Your task to perform on an android device: Turn off the flashlight Image 0: 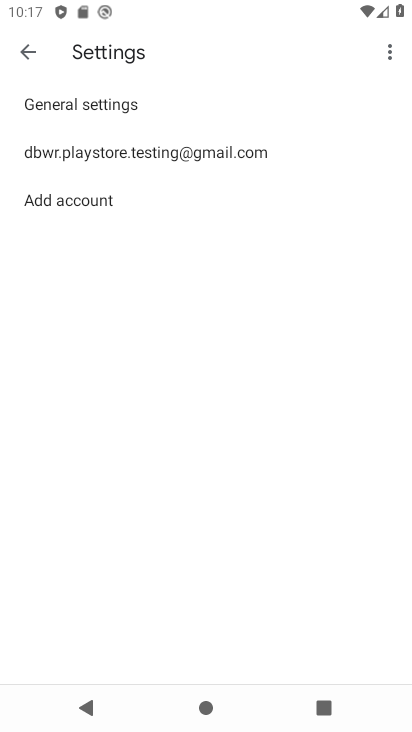
Step 0: press back button
Your task to perform on an android device: Turn off the flashlight Image 1: 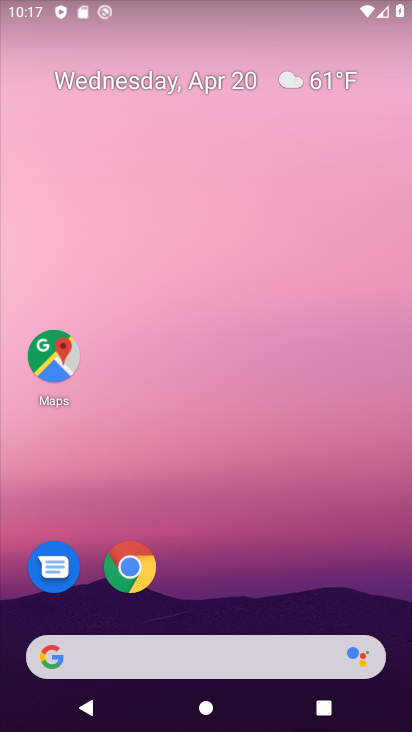
Step 1: drag from (221, 616) to (260, 144)
Your task to perform on an android device: Turn off the flashlight Image 2: 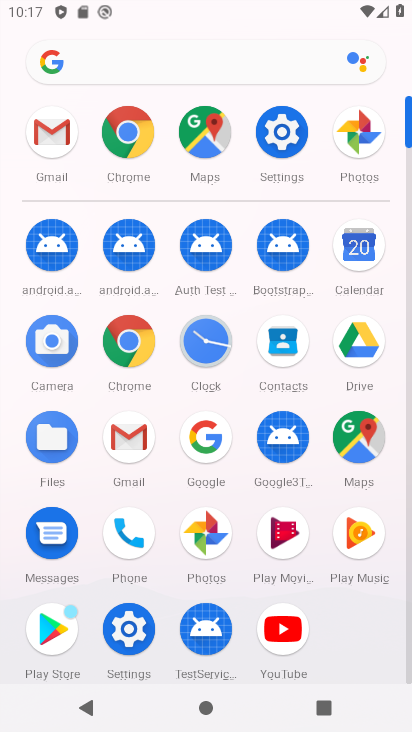
Step 2: click (277, 125)
Your task to perform on an android device: Turn off the flashlight Image 3: 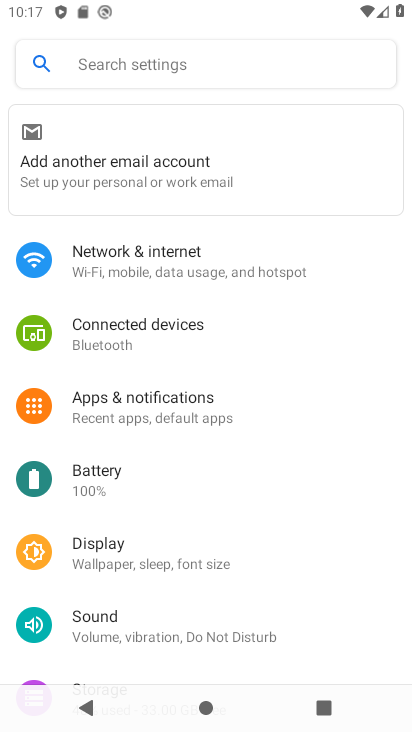
Step 3: click (203, 58)
Your task to perform on an android device: Turn off the flashlight Image 4: 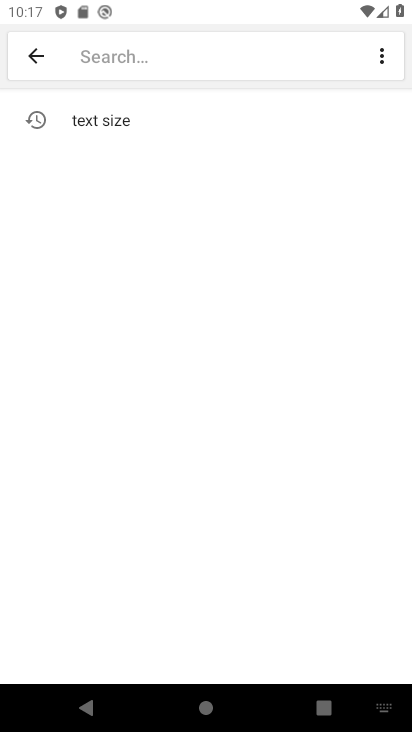
Step 4: type "flashlight"
Your task to perform on an android device: Turn off the flashlight Image 5: 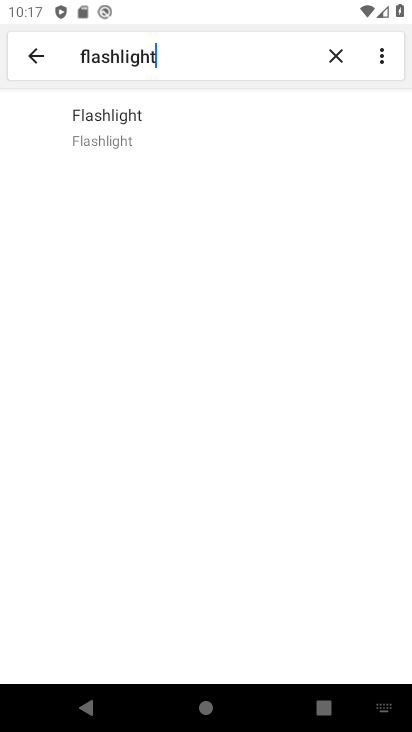
Step 5: click (87, 127)
Your task to perform on an android device: Turn off the flashlight Image 6: 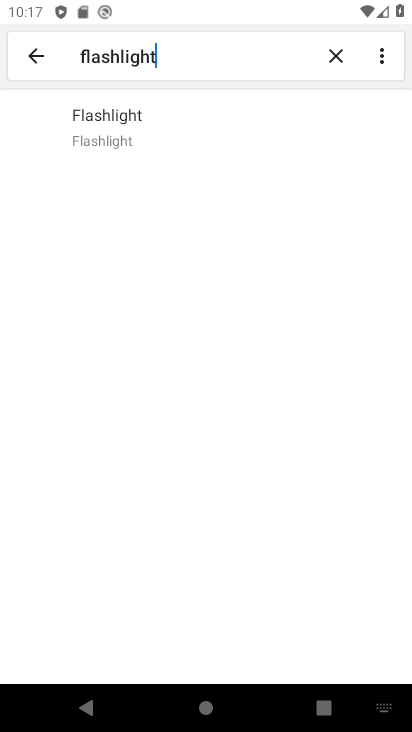
Step 6: click (94, 136)
Your task to perform on an android device: Turn off the flashlight Image 7: 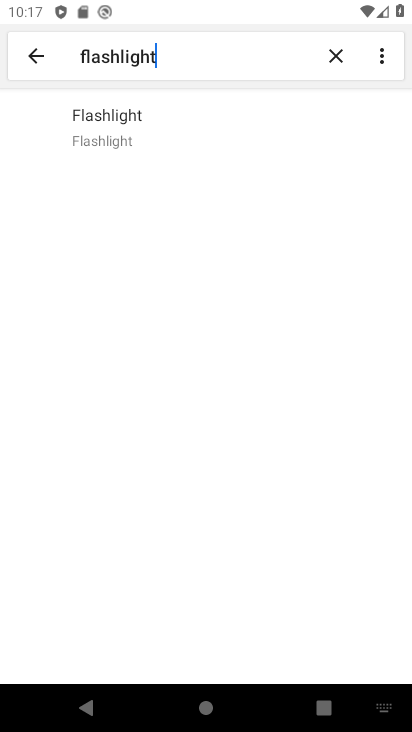
Step 7: task complete